Your task to perform on an android device: toggle priority inbox in the gmail app Image 0: 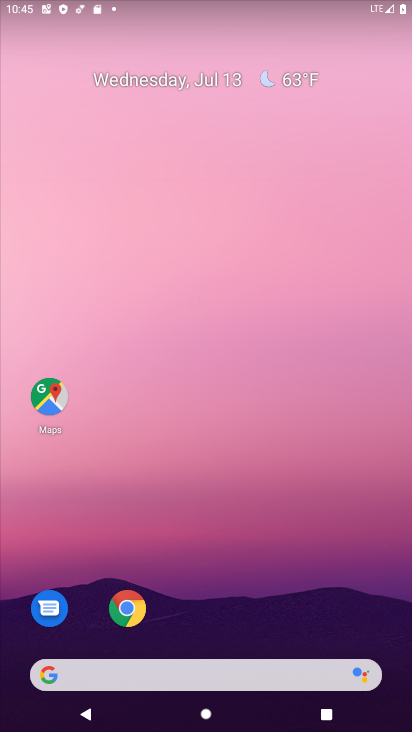
Step 0: drag from (216, 634) to (281, 2)
Your task to perform on an android device: toggle priority inbox in the gmail app Image 1: 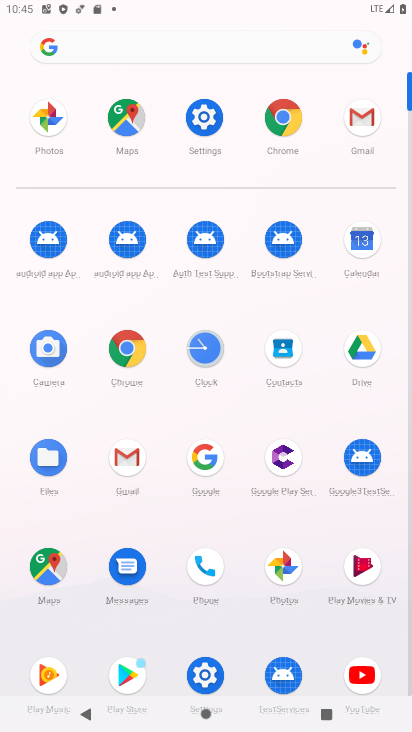
Step 1: click (123, 457)
Your task to perform on an android device: toggle priority inbox in the gmail app Image 2: 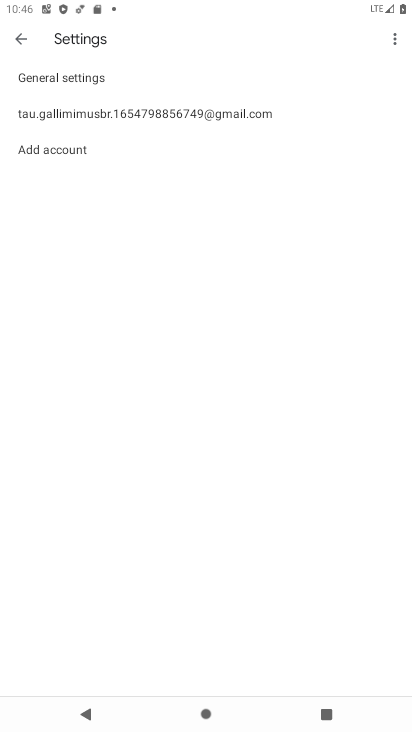
Step 2: click (66, 115)
Your task to perform on an android device: toggle priority inbox in the gmail app Image 3: 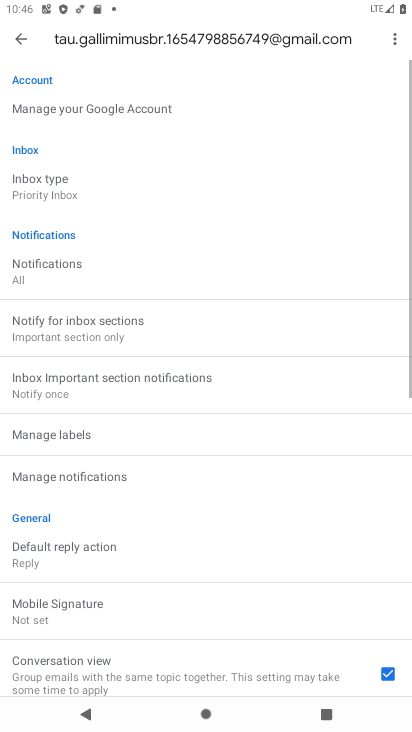
Step 3: click (36, 187)
Your task to perform on an android device: toggle priority inbox in the gmail app Image 4: 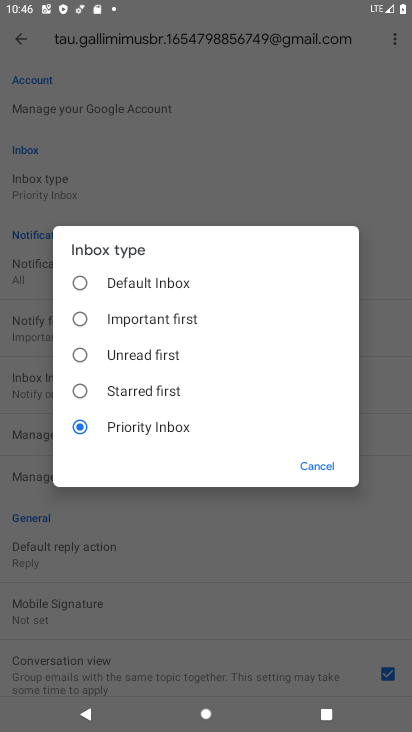
Step 4: click (132, 285)
Your task to perform on an android device: toggle priority inbox in the gmail app Image 5: 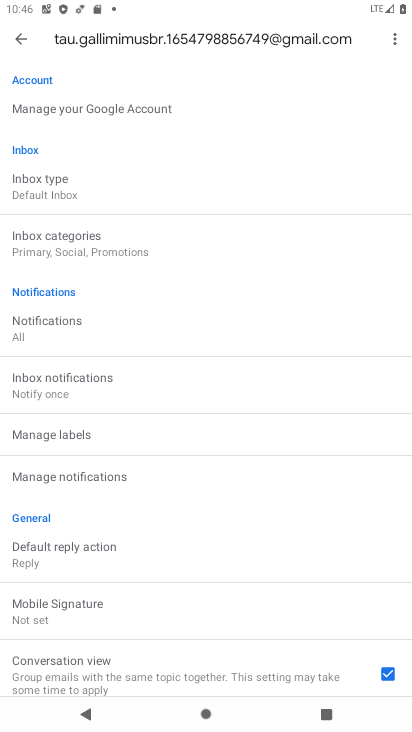
Step 5: task complete